Your task to perform on an android device: turn on the 12-hour format for clock Image 0: 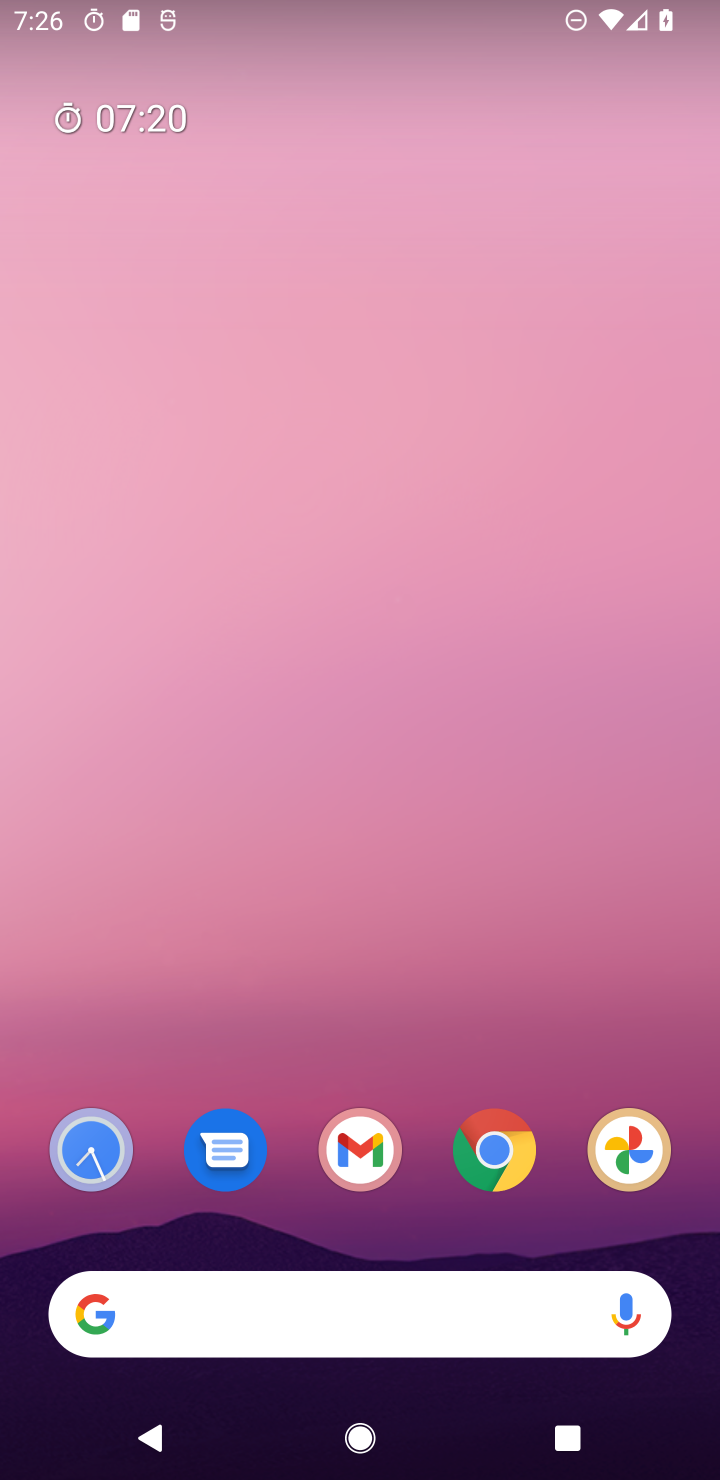
Step 0: drag from (478, 1346) to (420, 118)
Your task to perform on an android device: turn on the 12-hour format for clock Image 1: 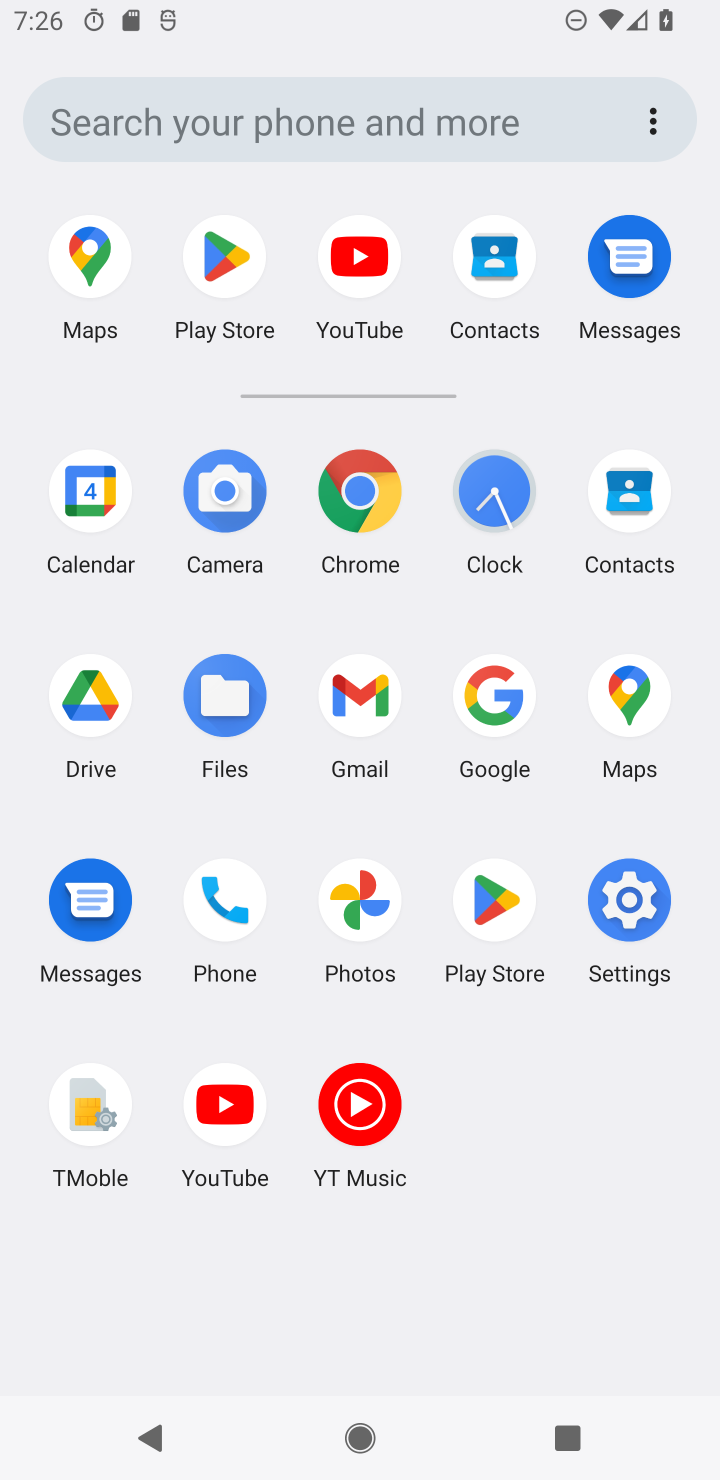
Step 1: click (513, 466)
Your task to perform on an android device: turn on the 12-hour format for clock Image 2: 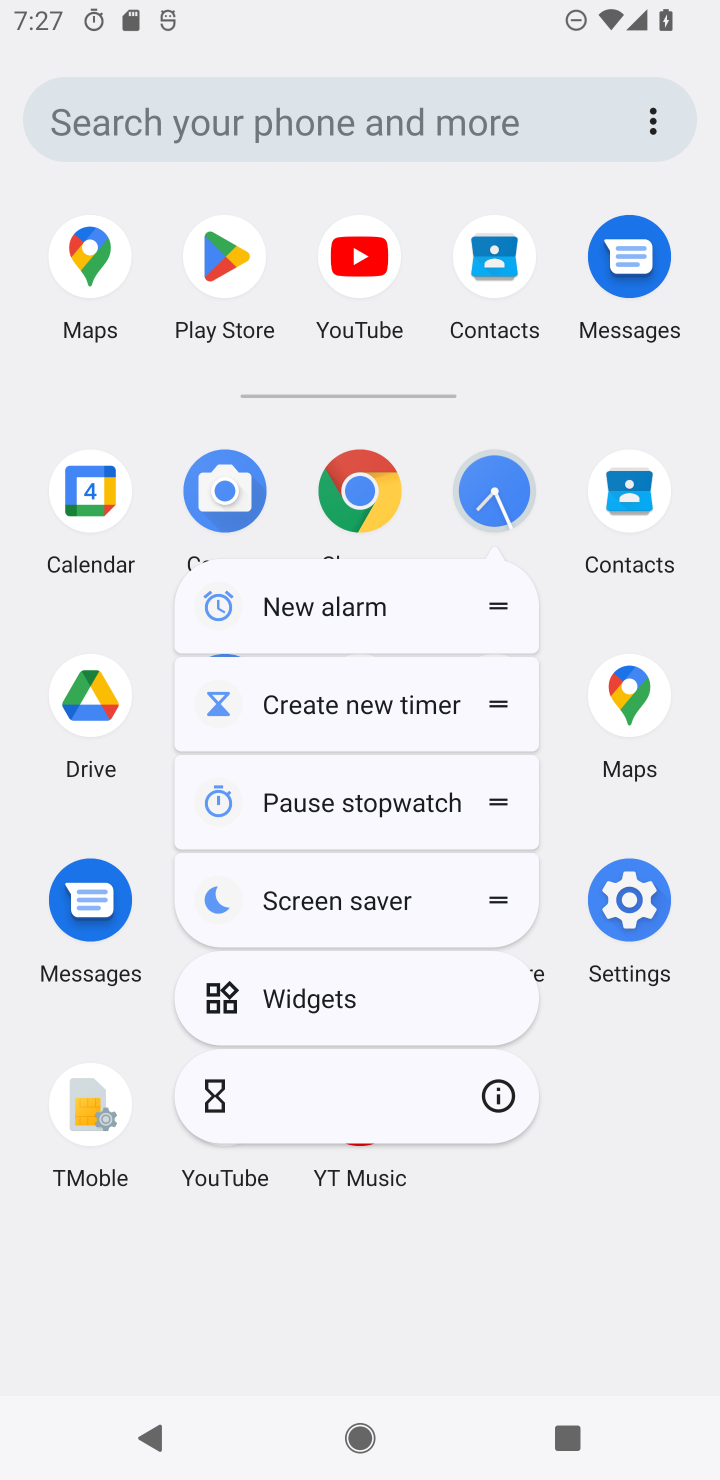
Step 2: click (492, 487)
Your task to perform on an android device: turn on the 12-hour format for clock Image 3: 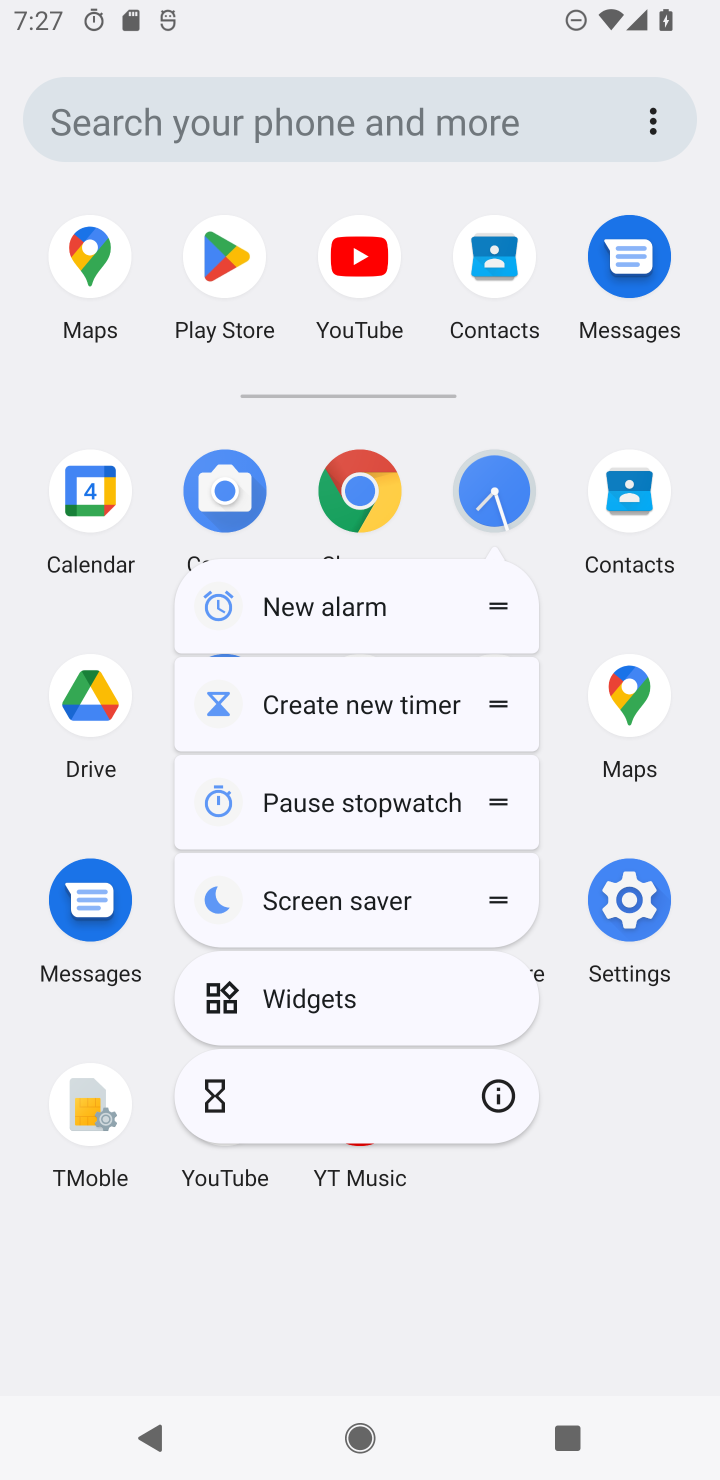
Step 3: click (497, 460)
Your task to perform on an android device: turn on the 12-hour format for clock Image 4: 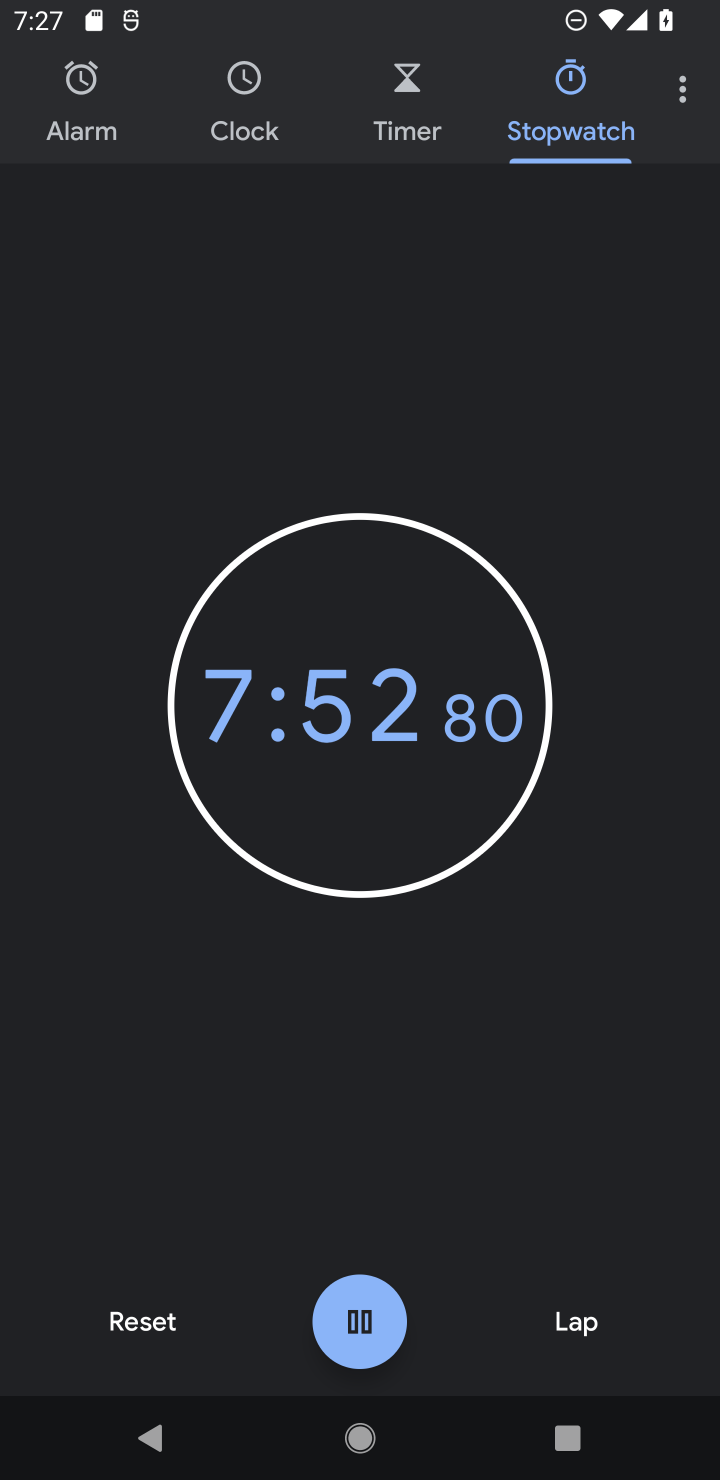
Step 4: click (666, 98)
Your task to perform on an android device: turn on the 12-hour format for clock Image 5: 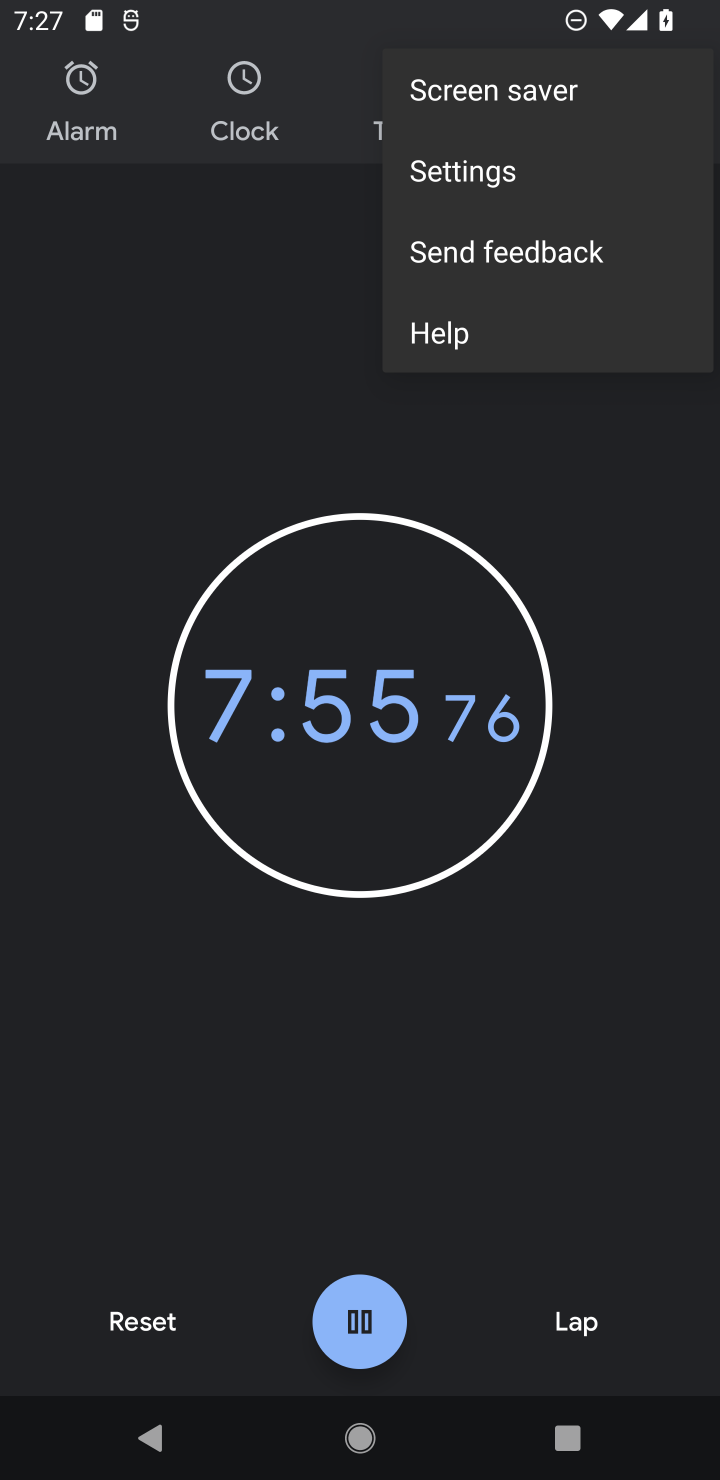
Step 5: click (536, 175)
Your task to perform on an android device: turn on the 12-hour format for clock Image 6: 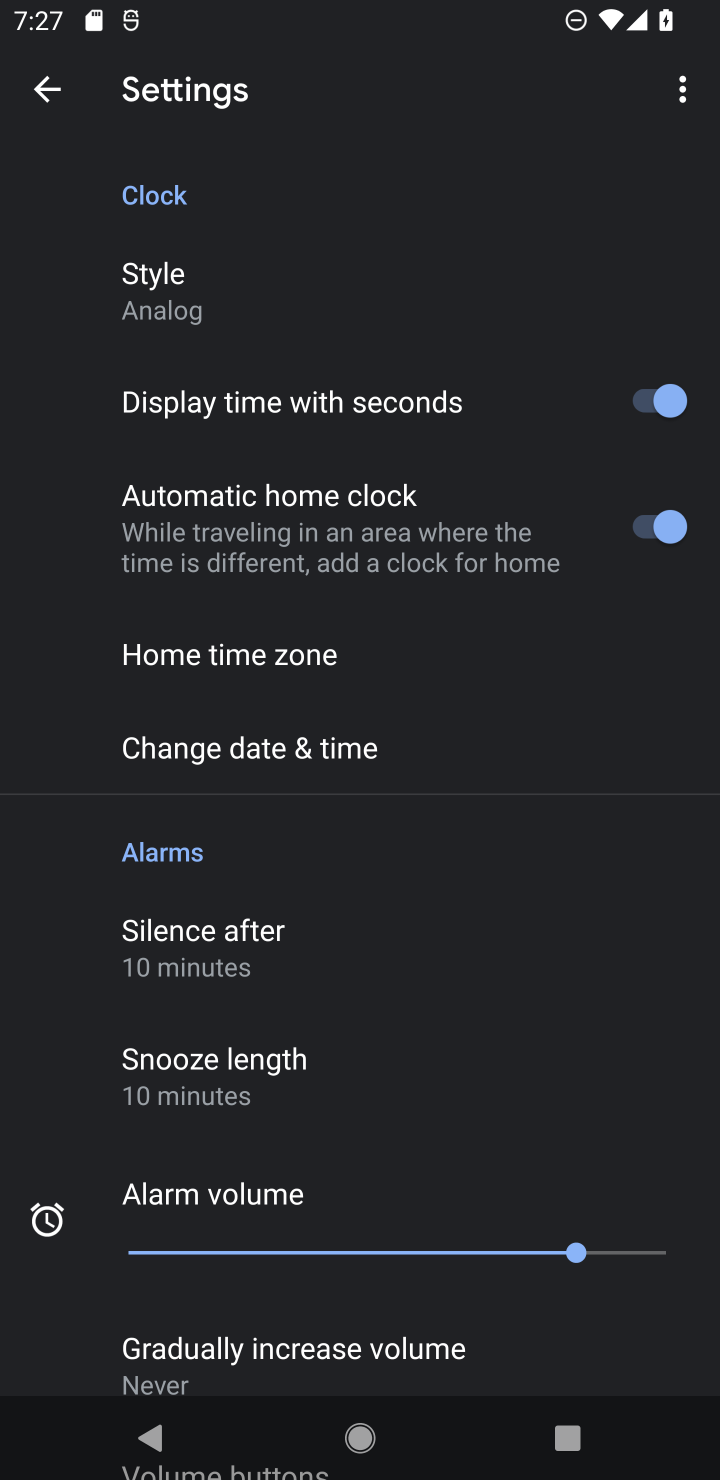
Step 6: click (333, 741)
Your task to perform on an android device: turn on the 12-hour format for clock Image 7: 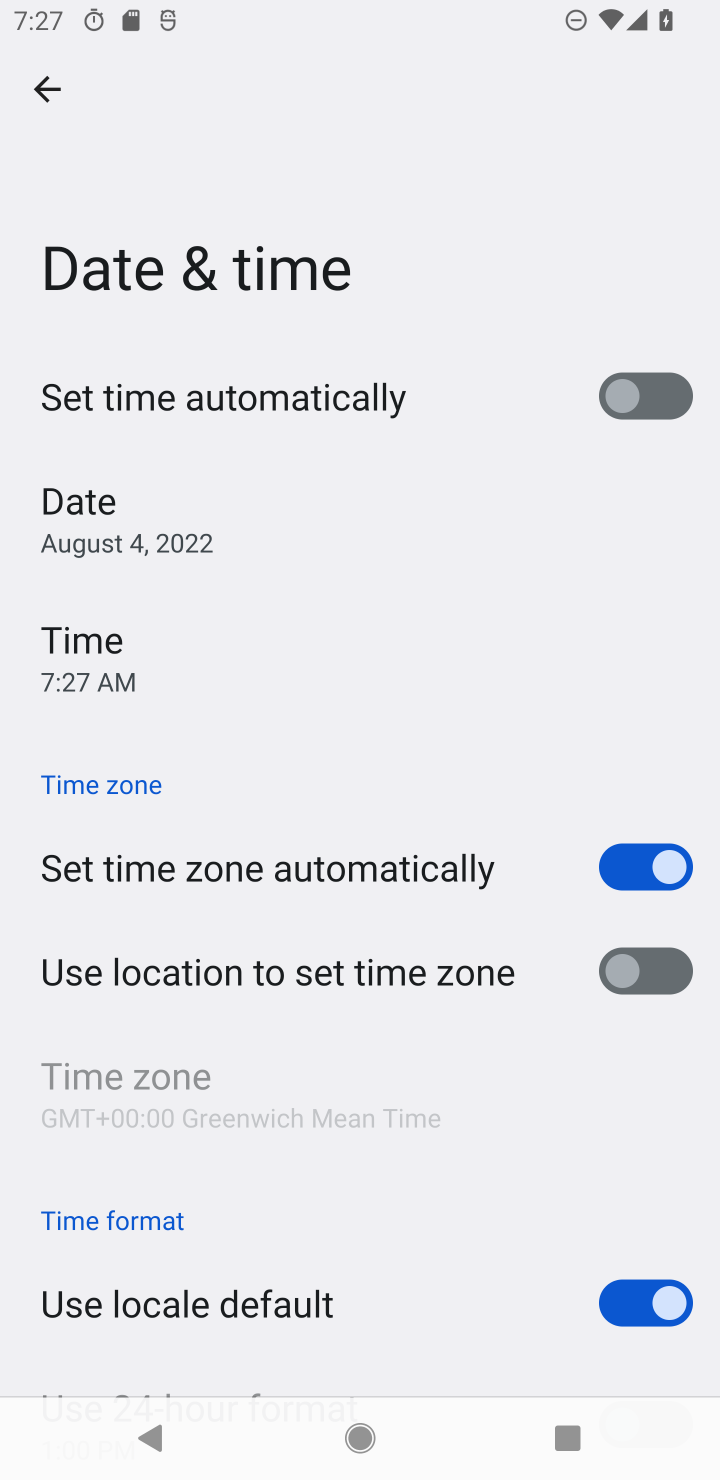
Step 7: drag from (446, 1179) to (304, 579)
Your task to perform on an android device: turn on the 12-hour format for clock Image 8: 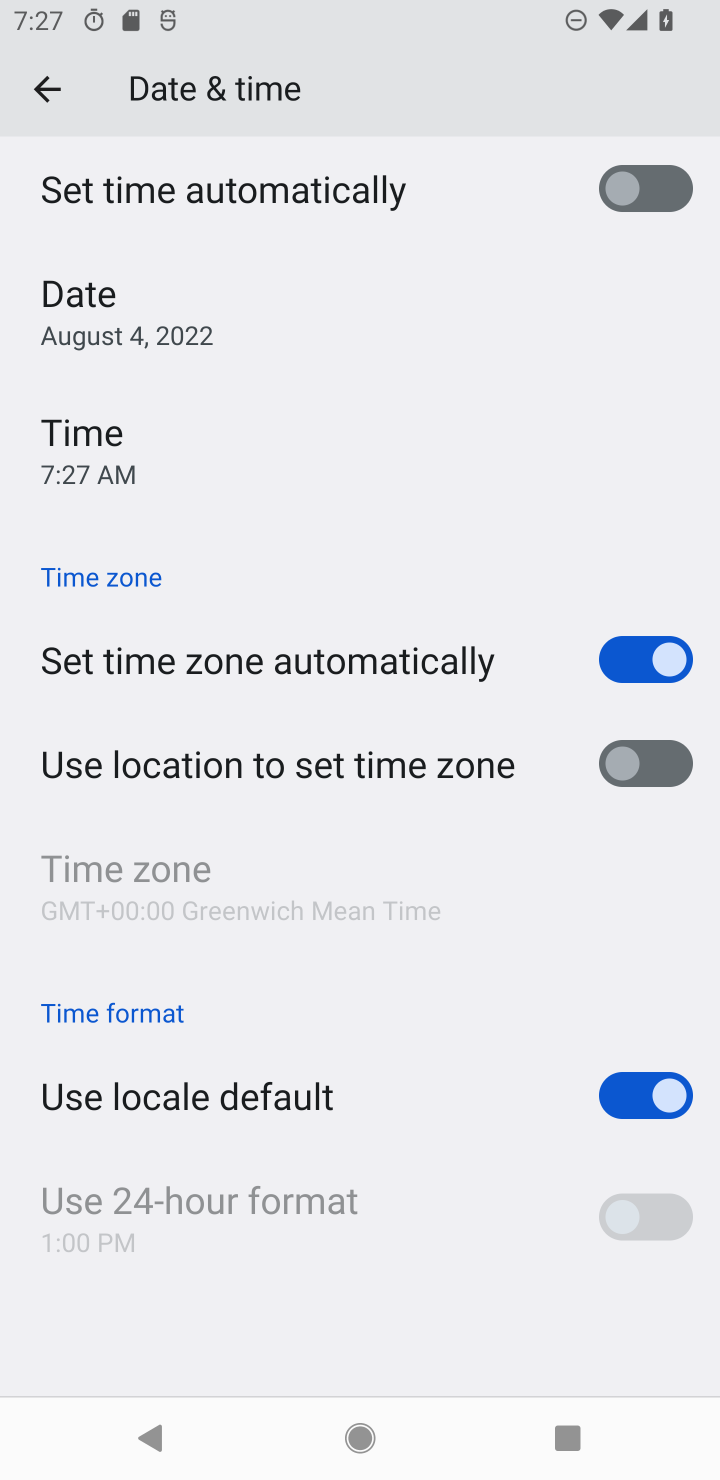
Step 8: click (604, 1091)
Your task to perform on an android device: turn on the 12-hour format for clock Image 9: 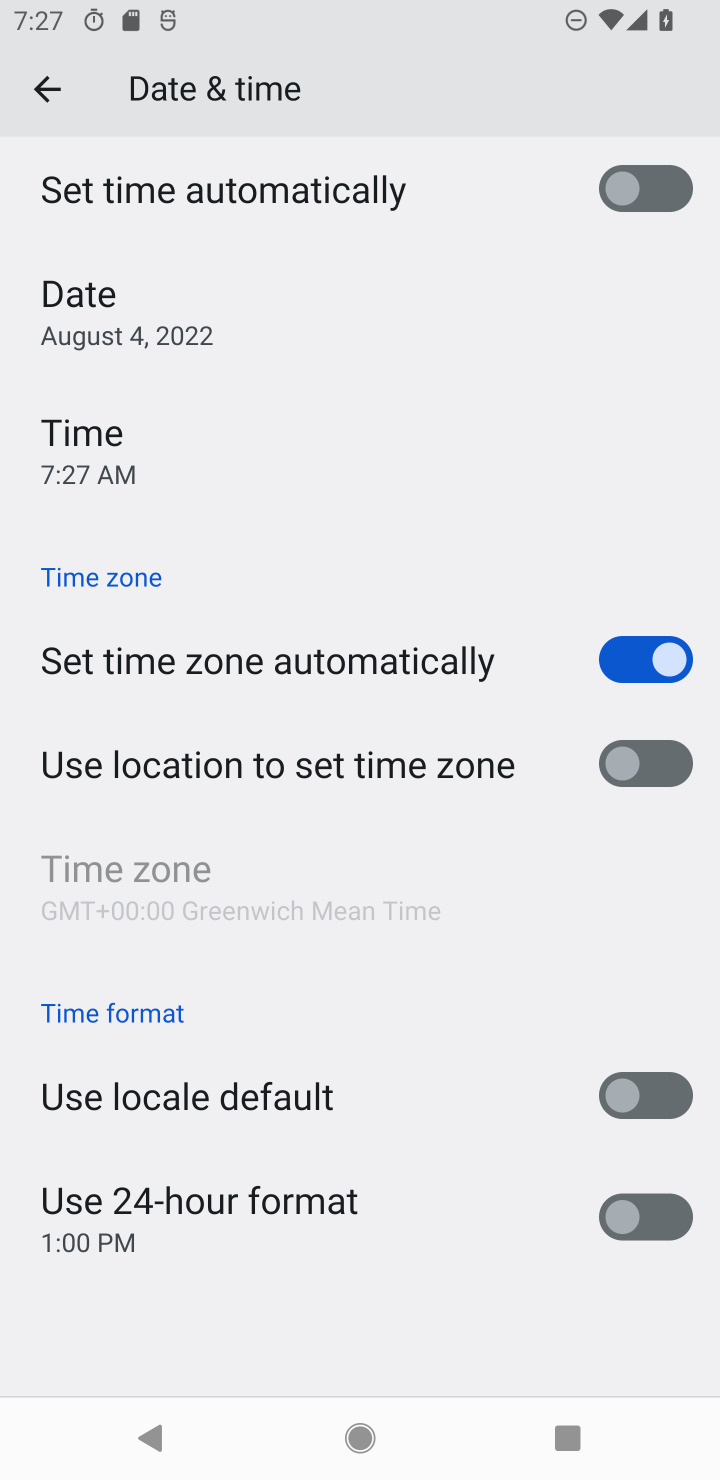
Step 9: task complete